Your task to perform on an android device: toggle translation in the chrome app Image 0: 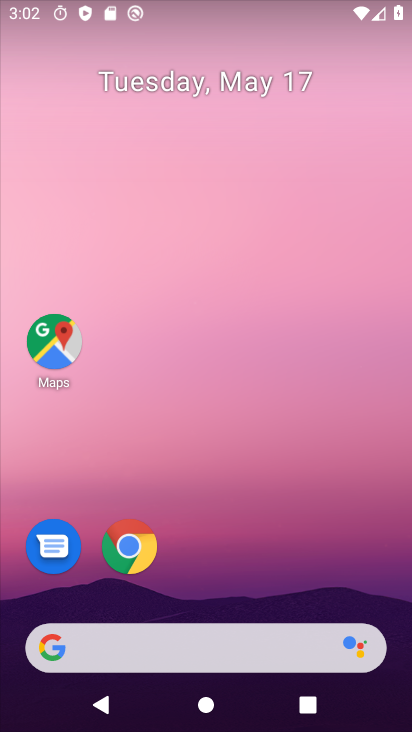
Step 0: drag from (198, 664) to (274, 168)
Your task to perform on an android device: toggle translation in the chrome app Image 1: 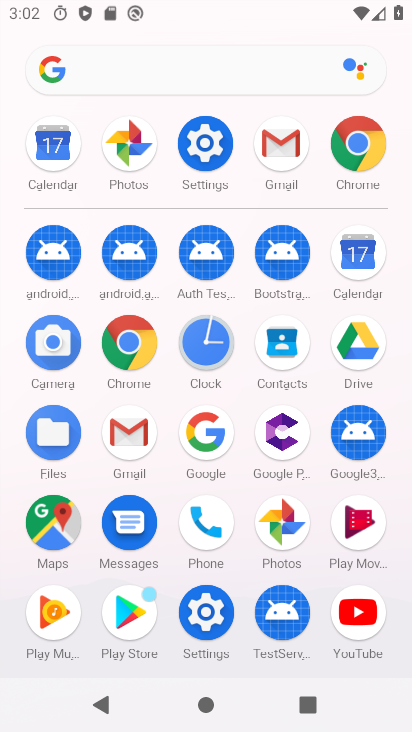
Step 1: click (365, 172)
Your task to perform on an android device: toggle translation in the chrome app Image 2: 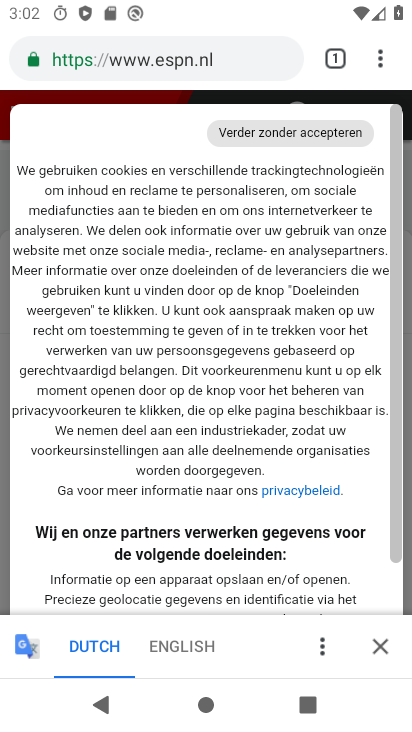
Step 2: click (371, 53)
Your task to perform on an android device: toggle translation in the chrome app Image 3: 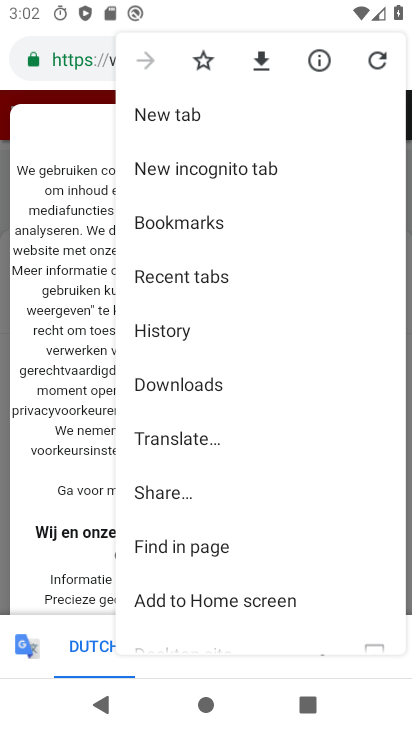
Step 3: drag from (210, 541) to (299, 71)
Your task to perform on an android device: toggle translation in the chrome app Image 4: 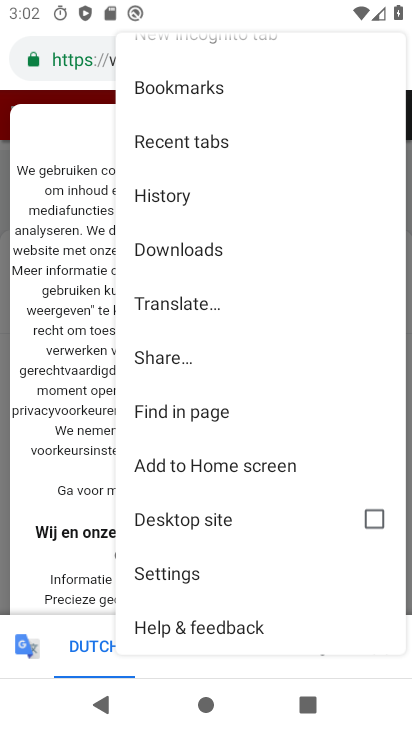
Step 4: click (234, 308)
Your task to perform on an android device: toggle translation in the chrome app Image 5: 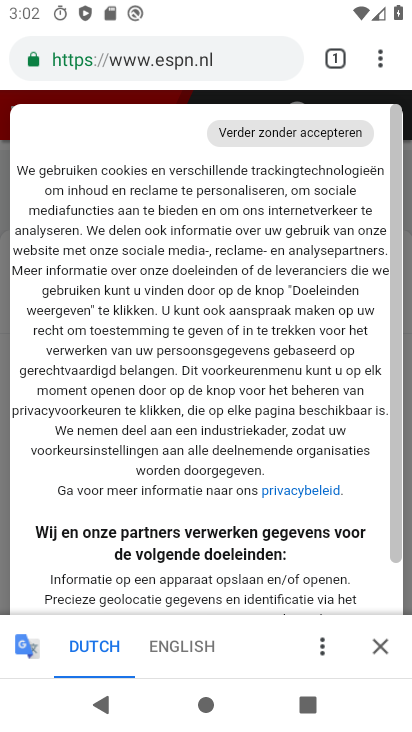
Step 5: click (384, 62)
Your task to perform on an android device: toggle translation in the chrome app Image 6: 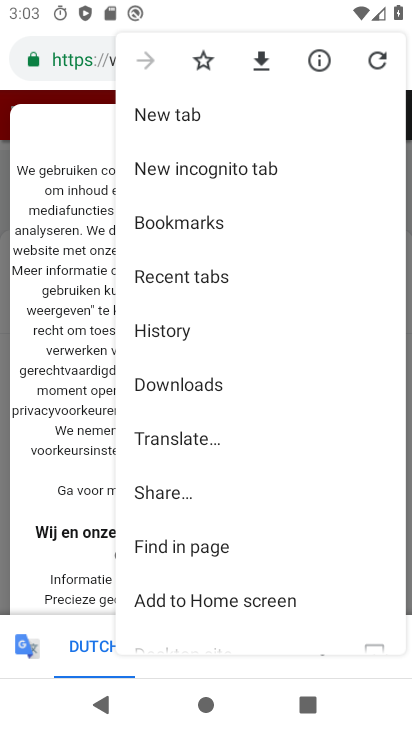
Step 6: click (214, 450)
Your task to perform on an android device: toggle translation in the chrome app Image 7: 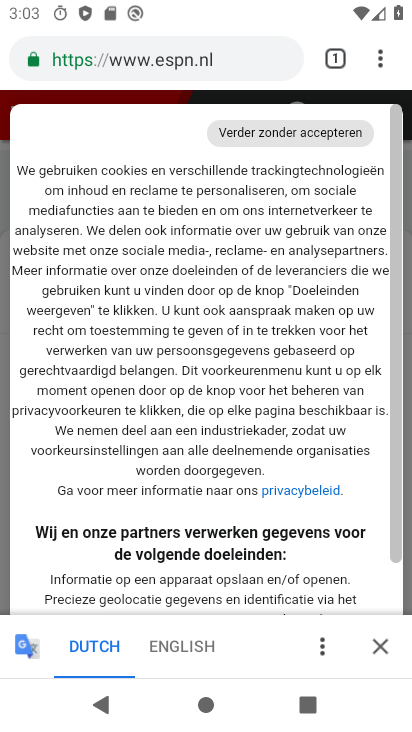
Step 7: click (386, 643)
Your task to perform on an android device: toggle translation in the chrome app Image 8: 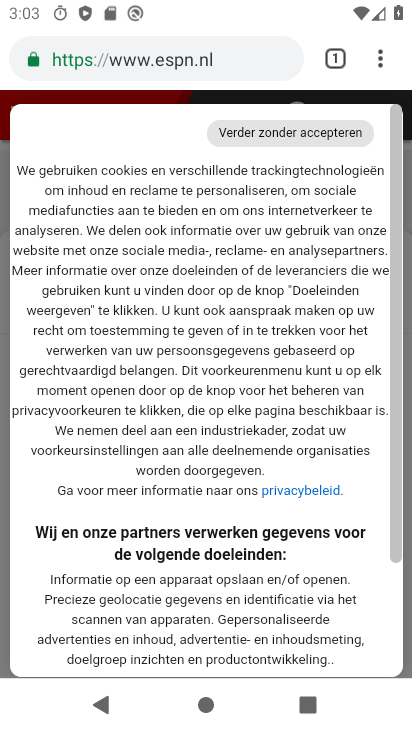
Step 8: click (383, 59)
Your task to perform on an android device: toggle translation in the chrome app Image 9: 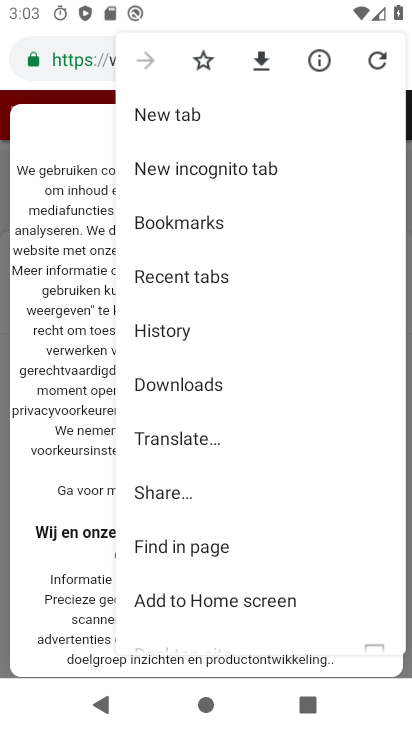
Step 9: click (201, 426)
Your task to perform on an android device: toggle translation in the chrome app Image 10: 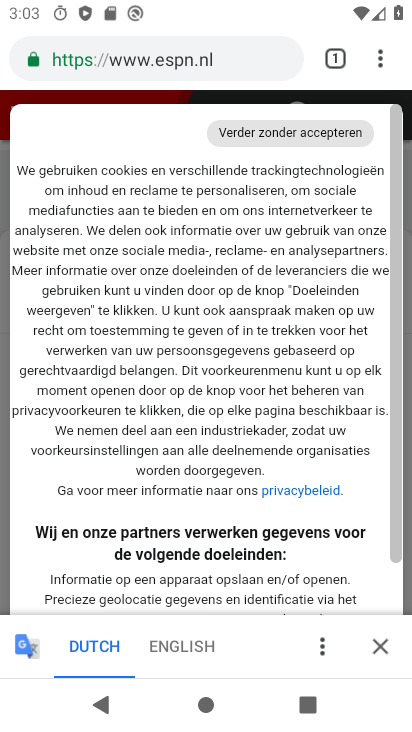
Step 10: click (309, 638)
Your task to perform on an android device: toggle translation in the chrome app Image 11: 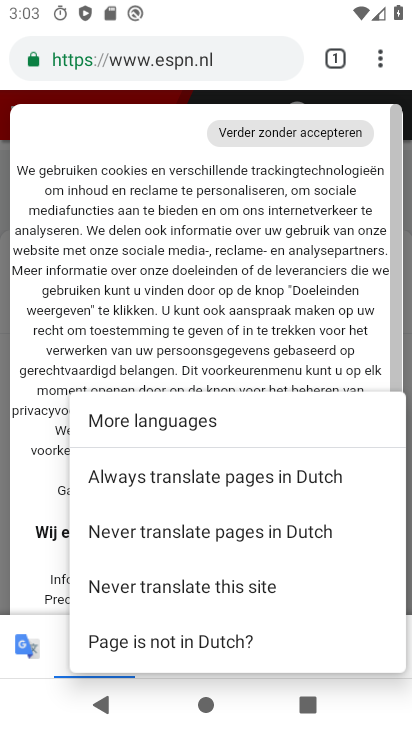
Step 11: click (266, 583)
Your task to perform on an android device: toggle translation in the chrome app Image 12: 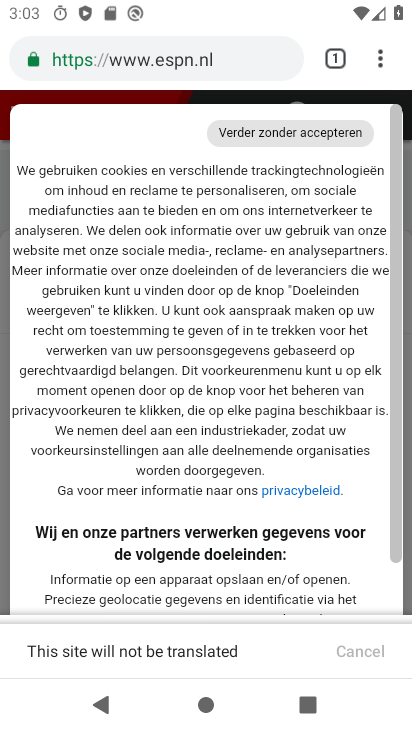
Step 12: task complete